Your task to perform on an android device: turn on the 12-hour format for clock Image 0: 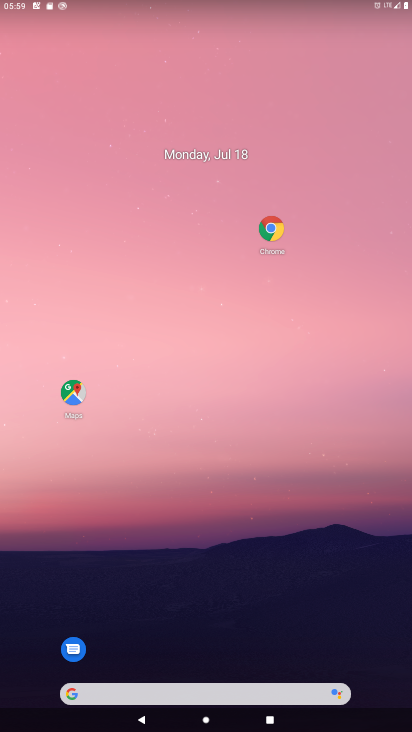
Step 0: drag from (167, 668) to (152, 157)
Your task to perform on an android device: turn on the 12-hour format for clock Image 1: 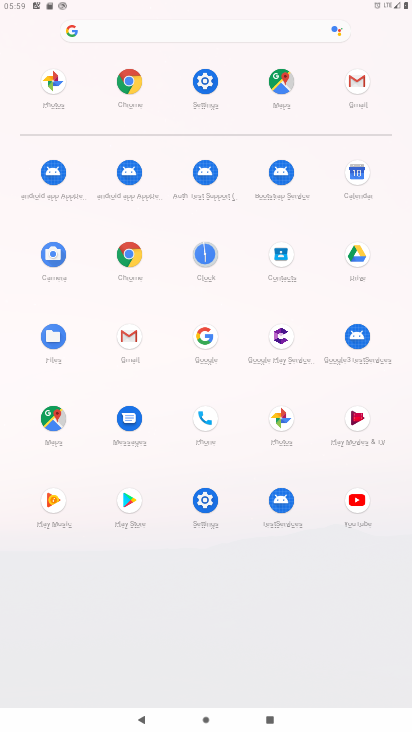
Step 1: click (213, 257)
Your task to perform on an android device: turn on the 12-hour format for clock Image 2: 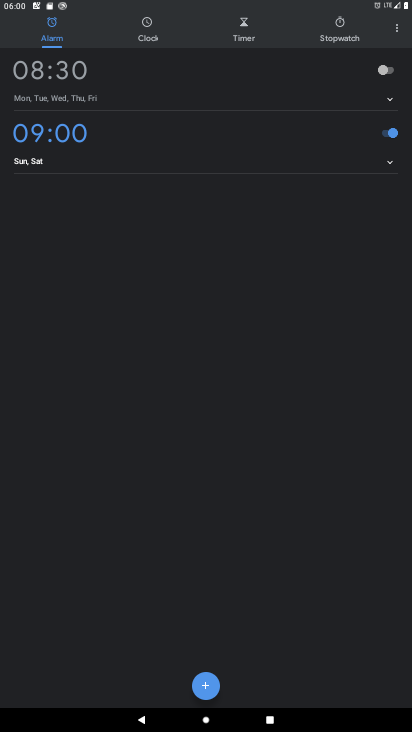
Step 2: click (394, 40)
Your task to perform on an android device: turn on the 12-hour format for clock Image 3: 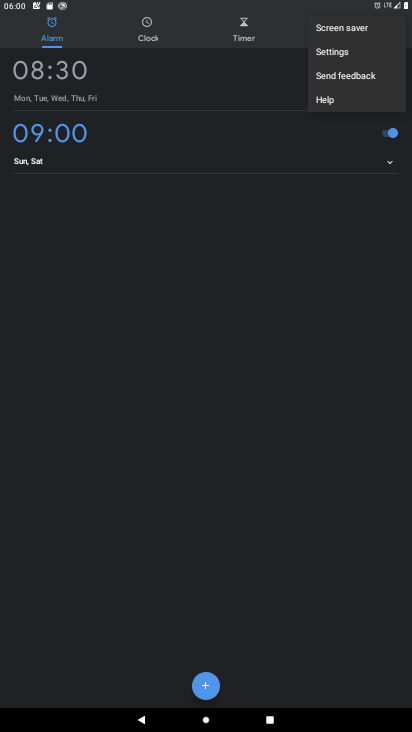
Step 3: click (368, 48)
Your task to perform on an android device: turn on the 12-hour format for clock Image 4: 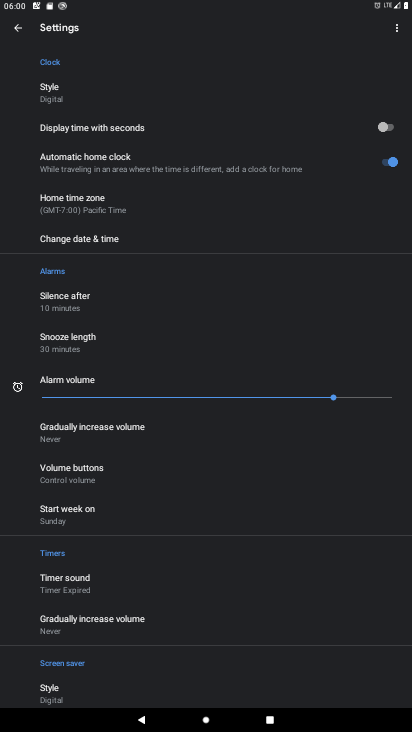
Step 4: task complete